Your task to perform on an android device: open sync settings in chrome Image 0: 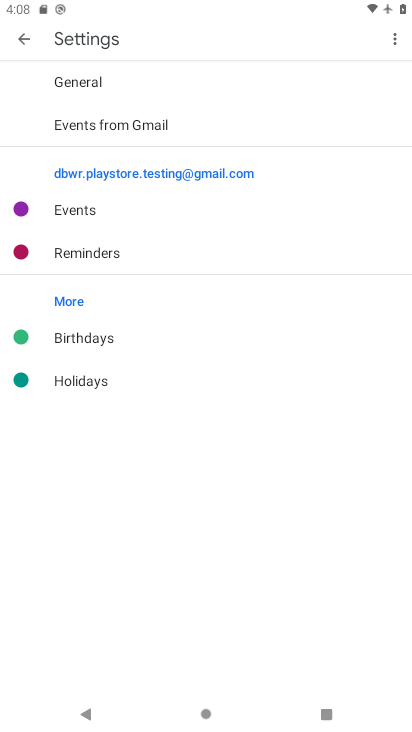
Step 0: press home button
Your task to perform on an android device: open sync settings in chrome Image 1: 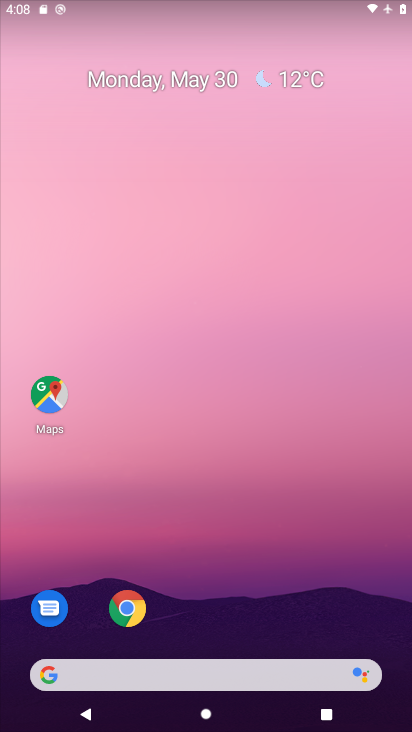
Step 1: click (126, 605)
Your task to perform on an android device: open sync settings in chrome Image 2: 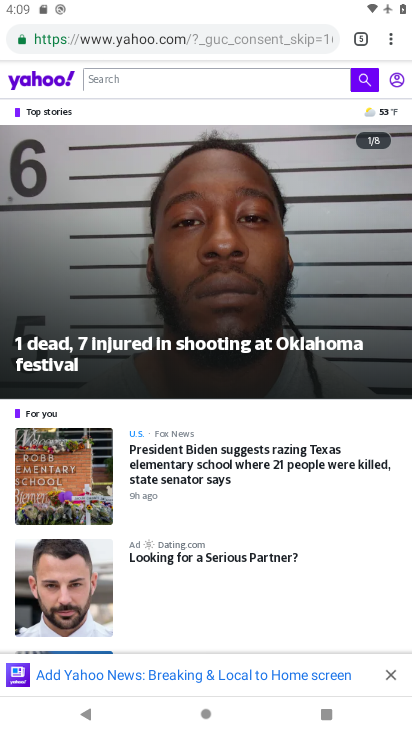
Step 2: click (391, 39)
Your task to perform on an android device: open sync settings in chrome Image 3: 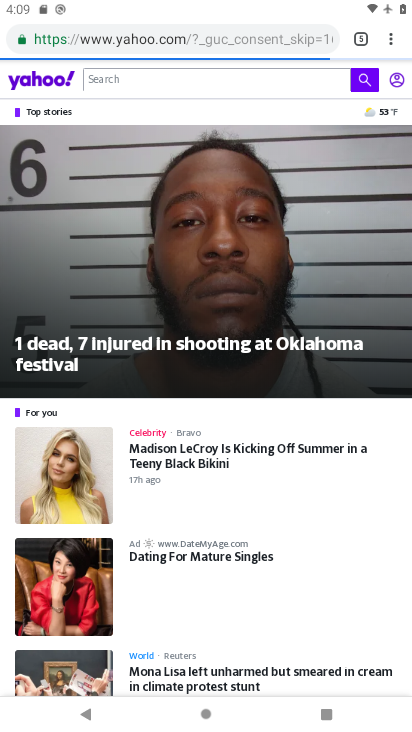
Step 3: click (393, 32)
Your task to perform on an android device: open sync settings in chrome Image 4: 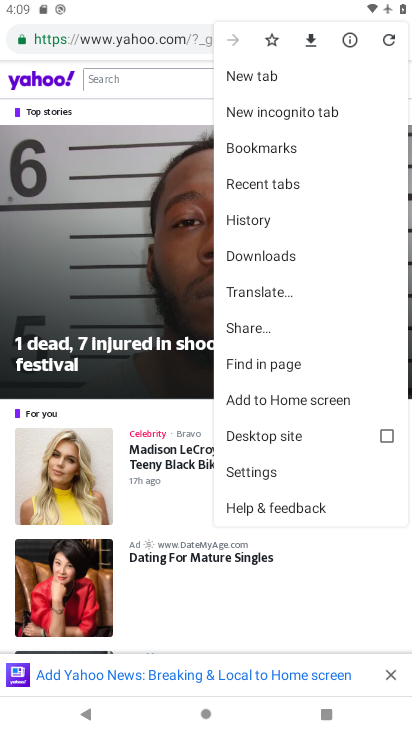
Step 4: click (277, 473)
Your task to perform on an android device: open sync settings in chrome Image 5: 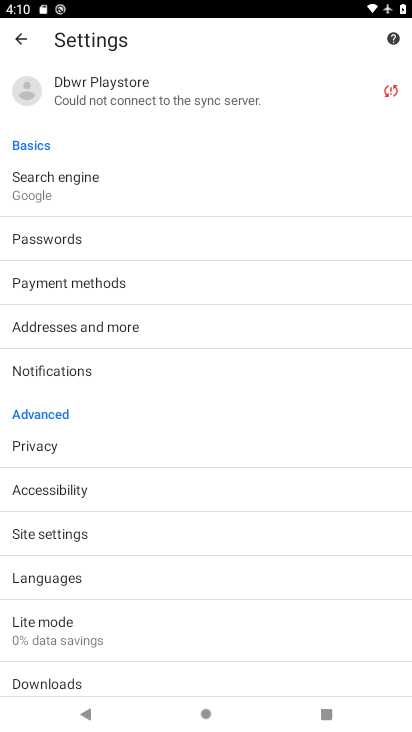
Step 5: click (117, 539)
Your task to perform on an android device: open sync settings in chrome Image 6: 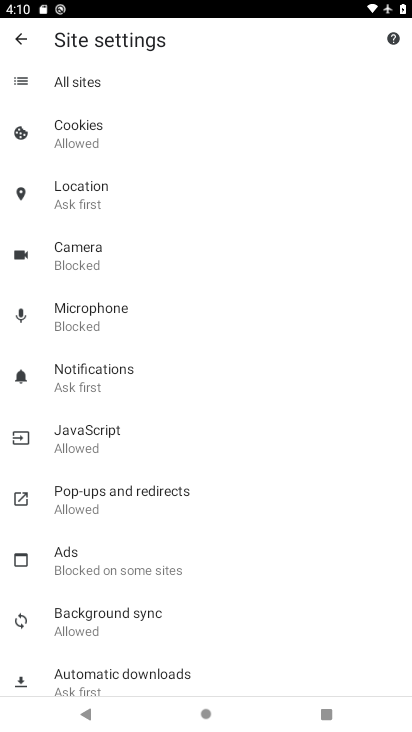
Step 6: click (137, 614)
Your task to perform on an android device: open sync settings in chrome Image 7: 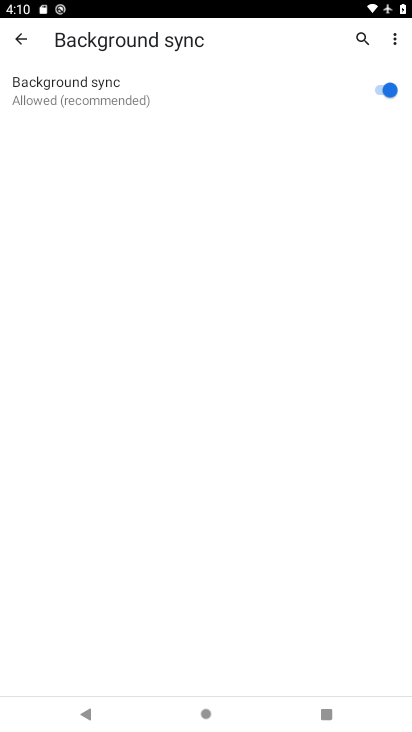
Step 7: task complete